Your task to perform on an android device: Open Amazon Image 0: 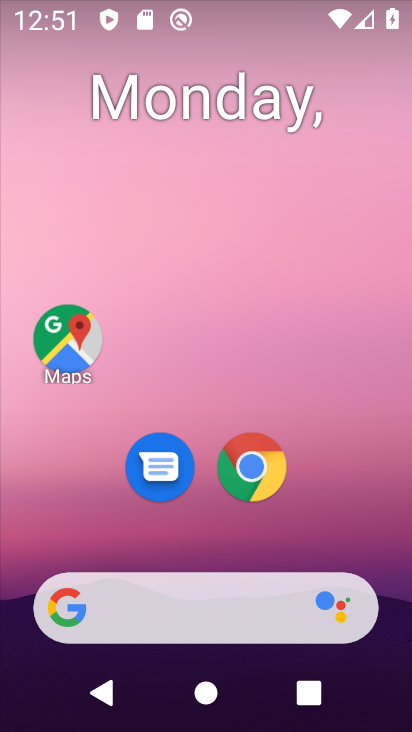
Step 0: click (243, 462)
Your task to perform on an android device: Open Amazon Image 1: 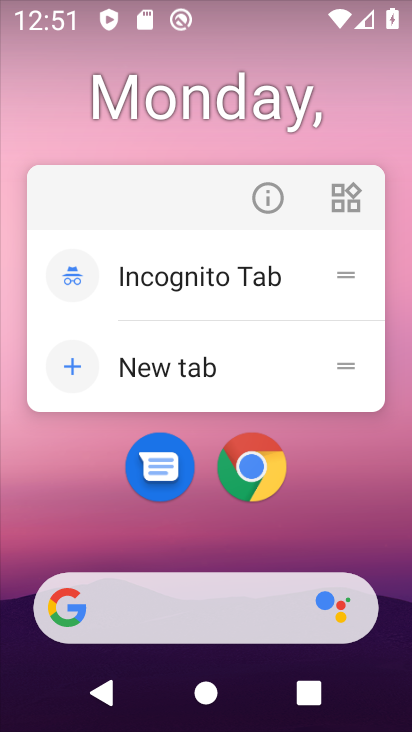
Step 1: click (243, 457)
Your task to perform on an android device: Open Amazon Image 2: 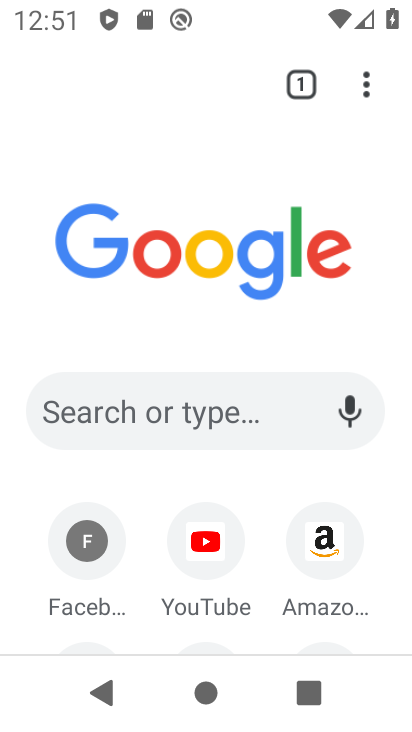
Step 2: click (326, 526)
Your task to perform on an android device: Open Amazon Image 3: 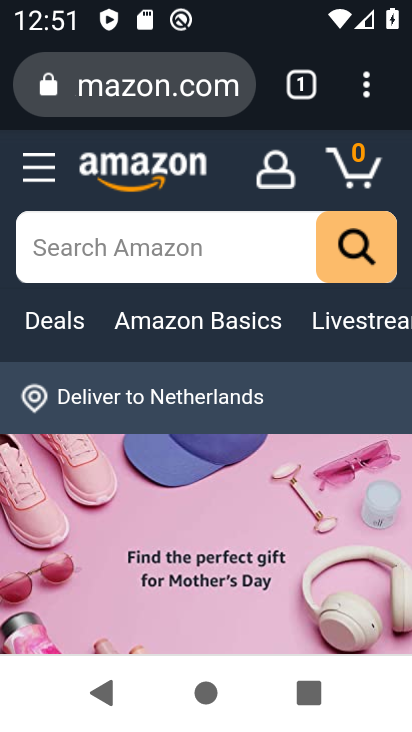
Step 3: task complete